Your task to perform on an android device: toggle location history Image 0: 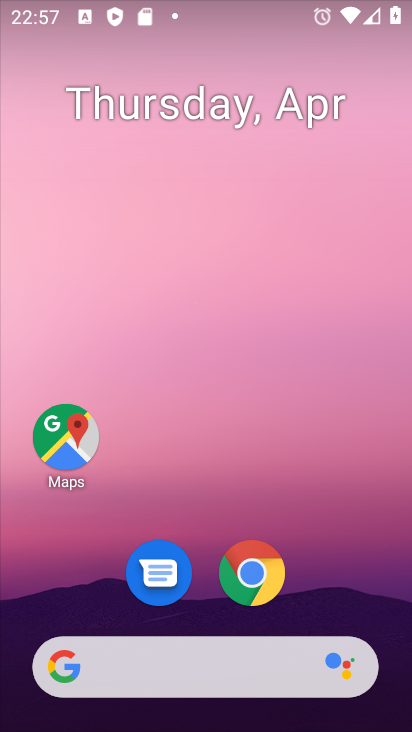
Step 0: drag from (329, 461) to (316, 94)
Your task to perform on an android device: toggle location history Image 1: 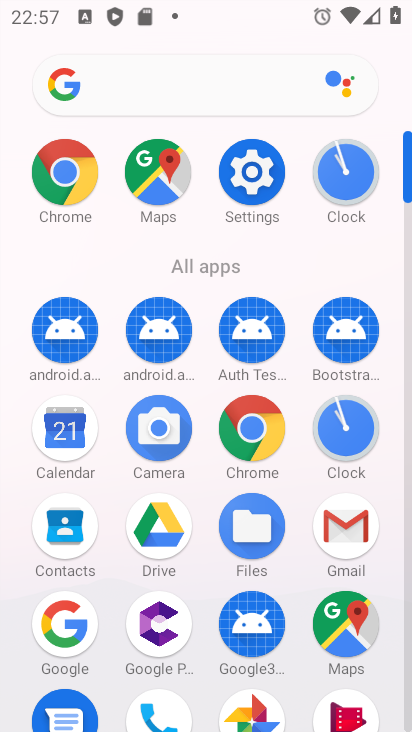
Step 1: click (261, 181)
Your task to perform on an android device: toggle location history Image 2: 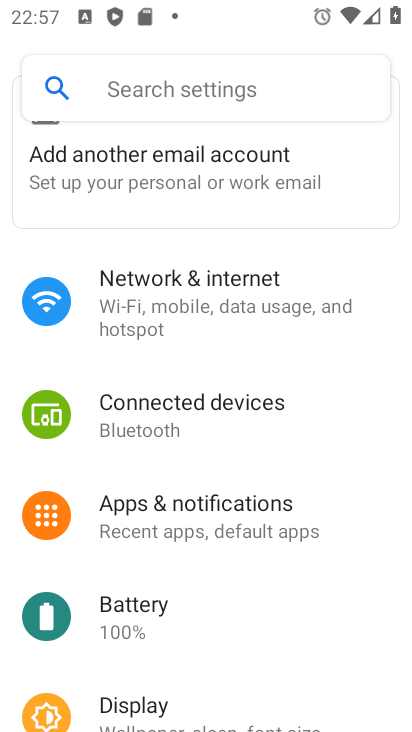
Step 2: drag from (200, 578) to (187, 109)
Your task to perform on an android device: toggle location history Image 3: 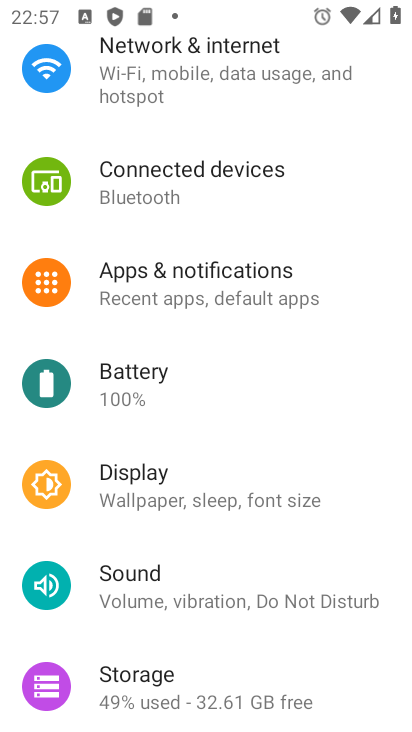
Step 3: drag from (221, 612) to (187, 114)
Your task to perform on an android device: toggle location history Image 4: 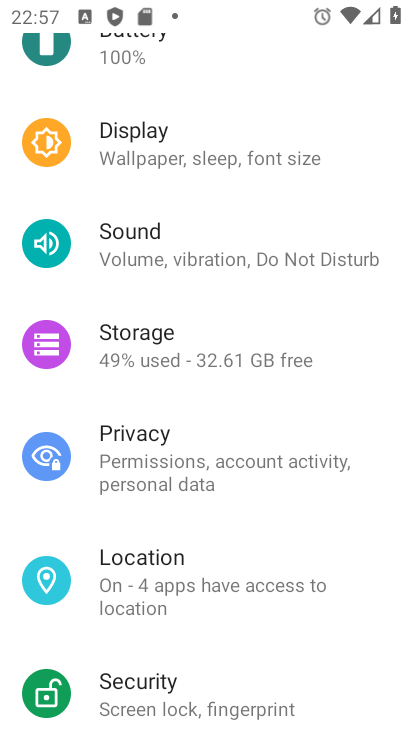
Step 4: click (201, 572)
Your task to perform on an android device: toggle location history Image 5: 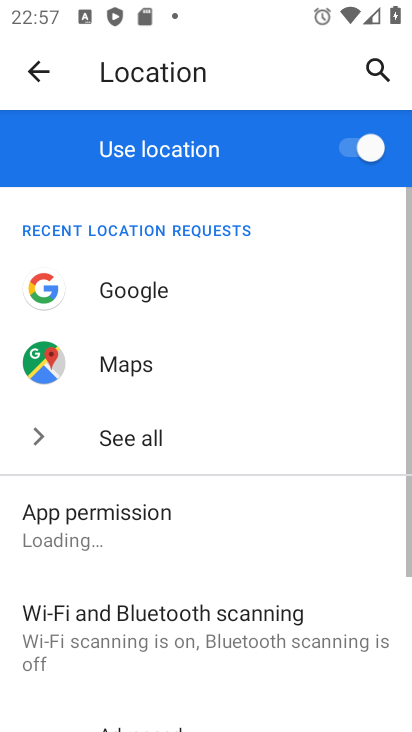
Step 5: drag from (190, 424) to (227, 133)
Your task to perform on an android device: toggle location history Image 6: 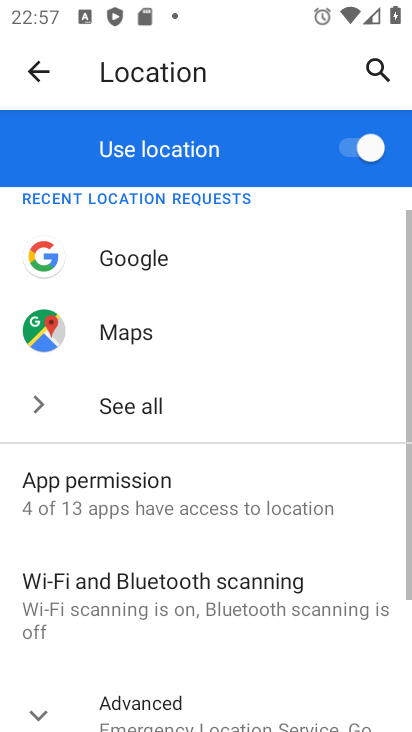
Step 6: click (201, 709)
Your task to perform on an android device: toggle location history Image 7: 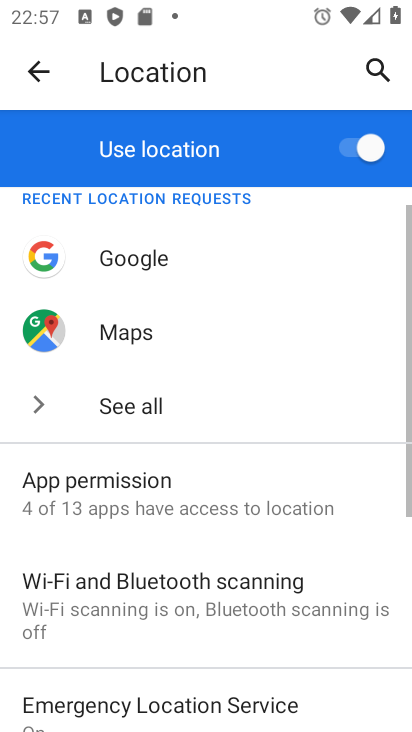
Step 7: drag from (200, 708) to (253, 104)
Your task to perform on an android device: toggle location history Image 8: 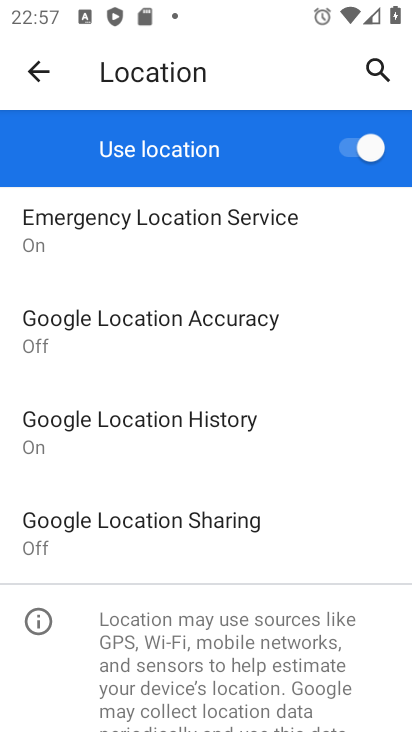
Step 8: click (186, 418)
Your task to perform on an android device: toggle location history Image 9: 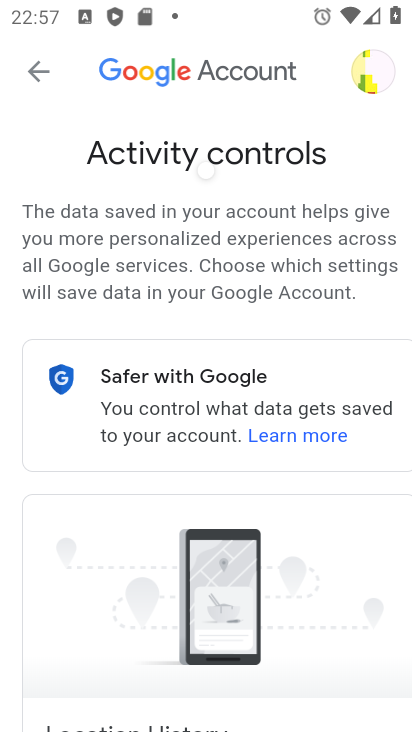
Step 9: drag from (305, 552) to (377, 8)
Your task to perform on an android device: toggle location history Image 10: 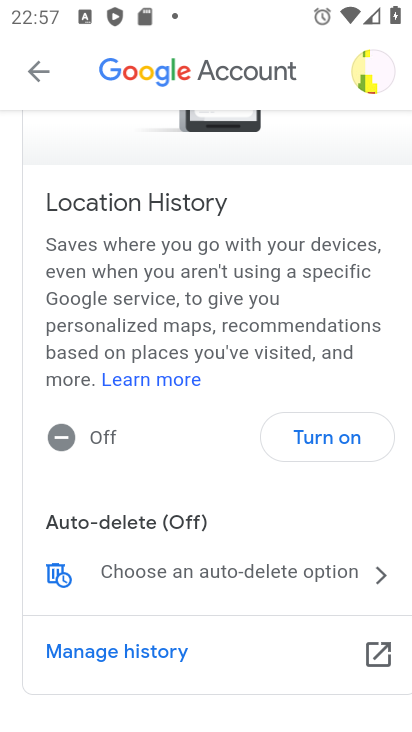
Step 10: click (323, 428)
Your task to perform on an android device: toggle location history Image 11: 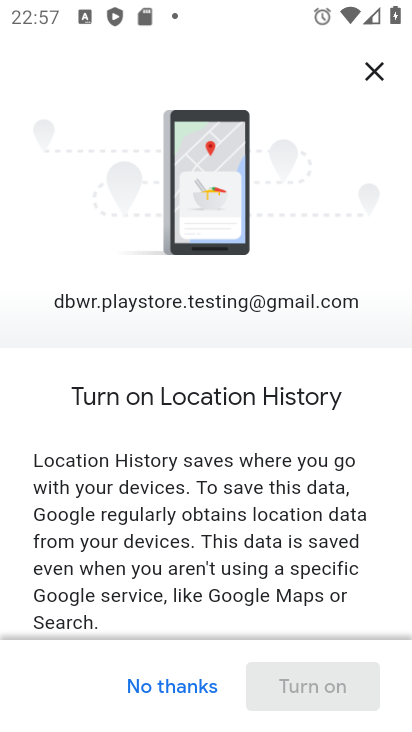
Step 11: drag from (314, 577) to (322, 27)
Your task to perform on an android device: toggle location history Image 12: 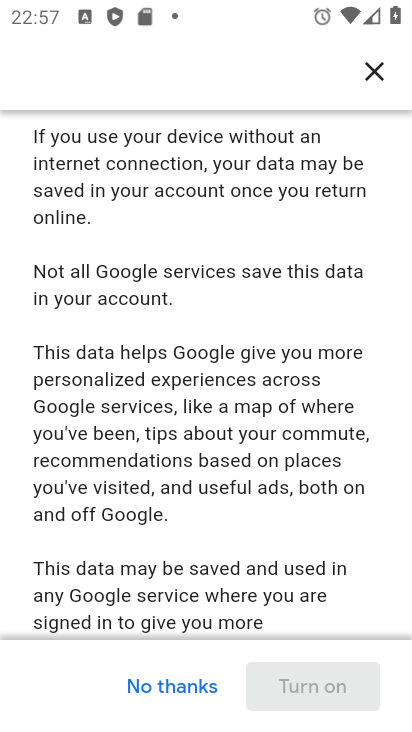
Step 12: drag from (251, 604) to (304, 26)
Your task to perform on an android device: toggle location history Image 13: 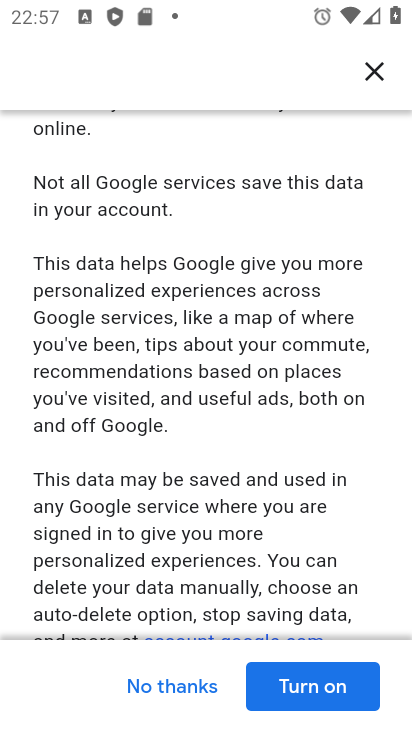
Step 13: click (300, 682)
Your task to perform on an android device: toggle location history Image 14: 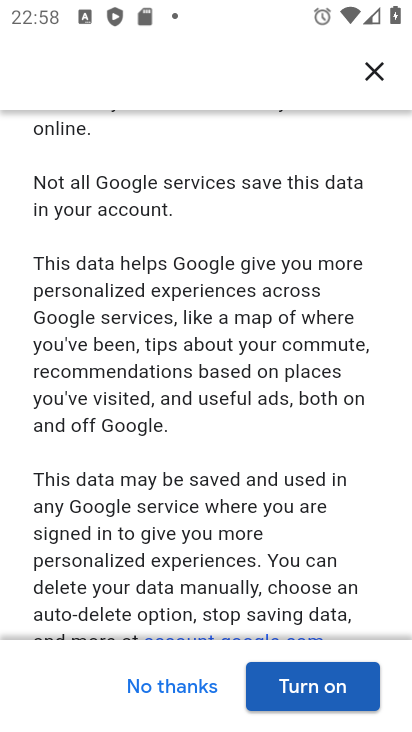
Step 14: click (327, 685)
Your task to perform on an android device: toggle location history Image 15: 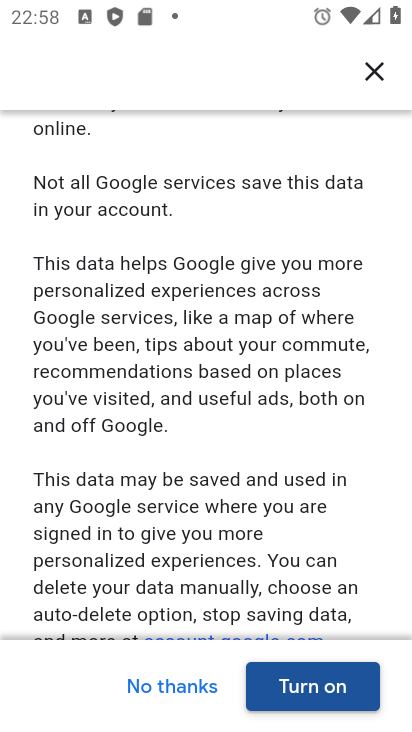
Step 15: click (326, 687)
Your task to perform on an android device: toggle location history Image 16: 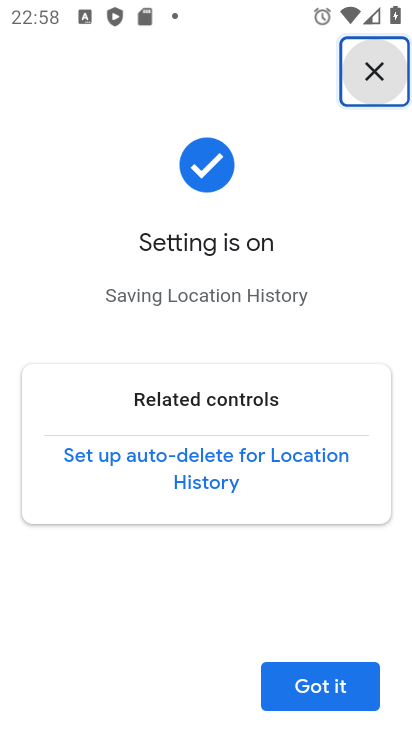
Step 16: click (324, 698)
Your task to perform on an android device: toggle location history Image 17: 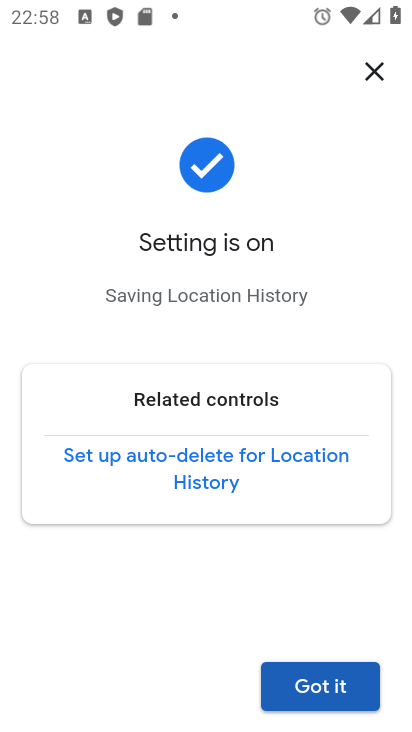
Step 17: click (321, 686)
Your task to perform on an android device: toggle location history Image 18: 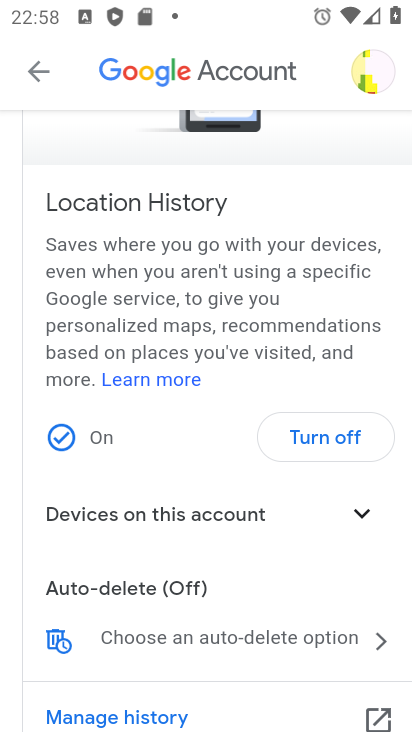
Step 18: task complete